Your task to perform on an android device: Go to Yahoo.com Image 0: 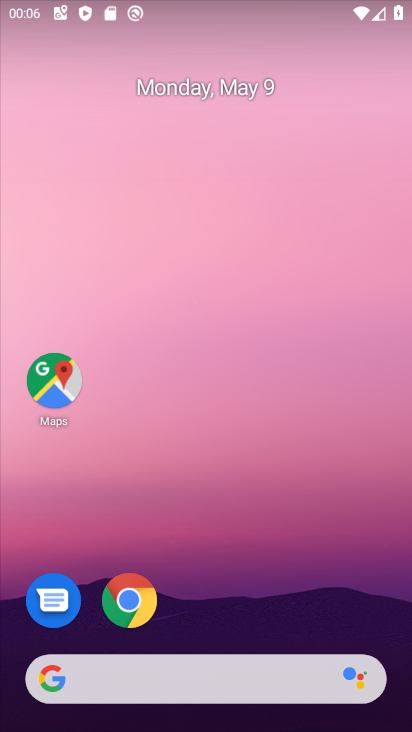
Step 0: click (143, 606)
Your task to perform on an android device: Go to Yahoo.com Image 1: 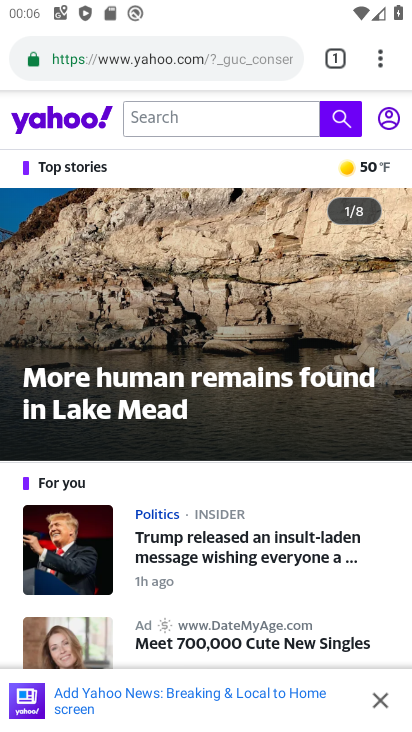
Step 1: task complete